Your task to perform on an android device: check google app version Image 0: 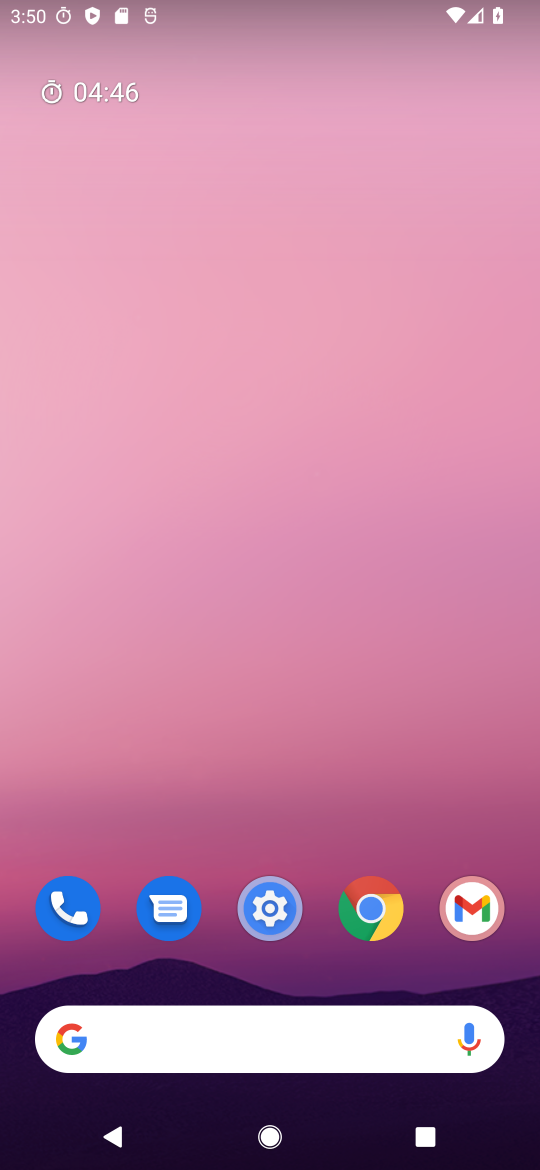
Step 0: press home button
Your task to perform on an android device: check google app version Image 1: 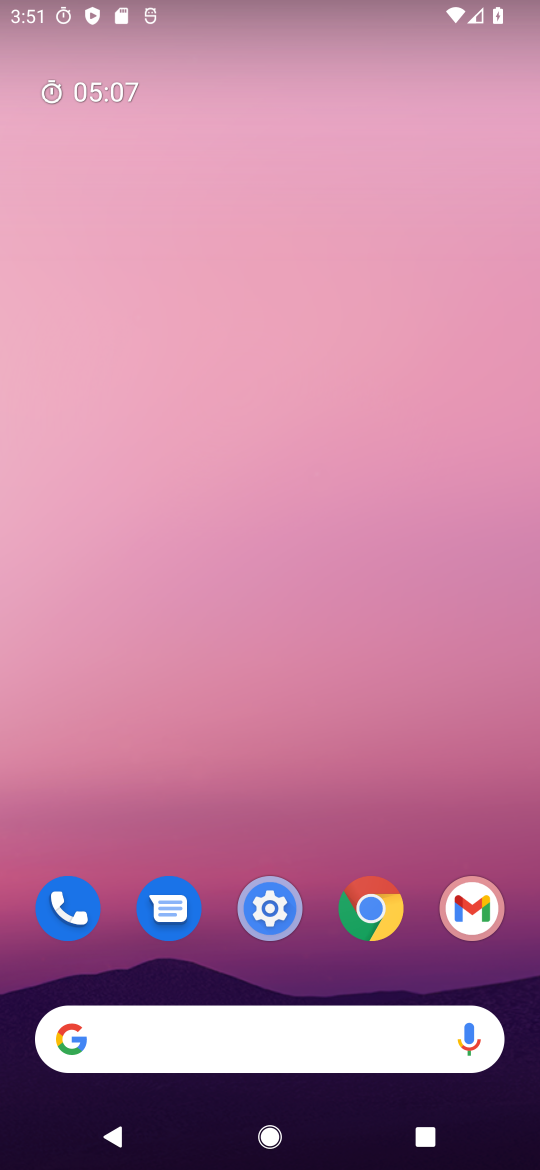
Step 1: drag from (320, 868) to (320, 140)
Your task to perform on an android device: check google app version Image 2: 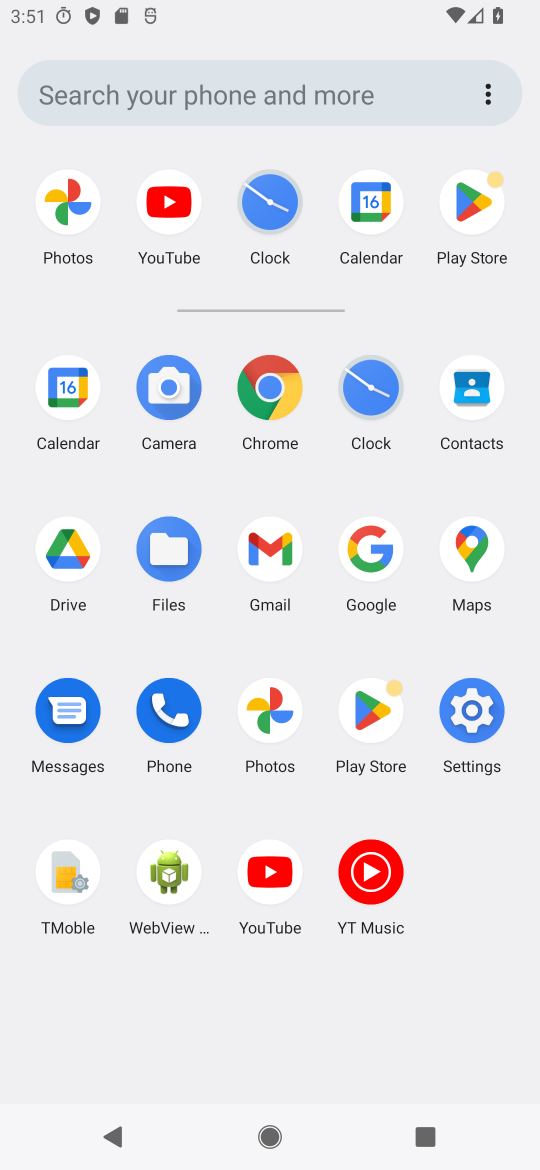
Step 2: click (366, 549)
Your task to perform on an android device: check google app version Image 3: 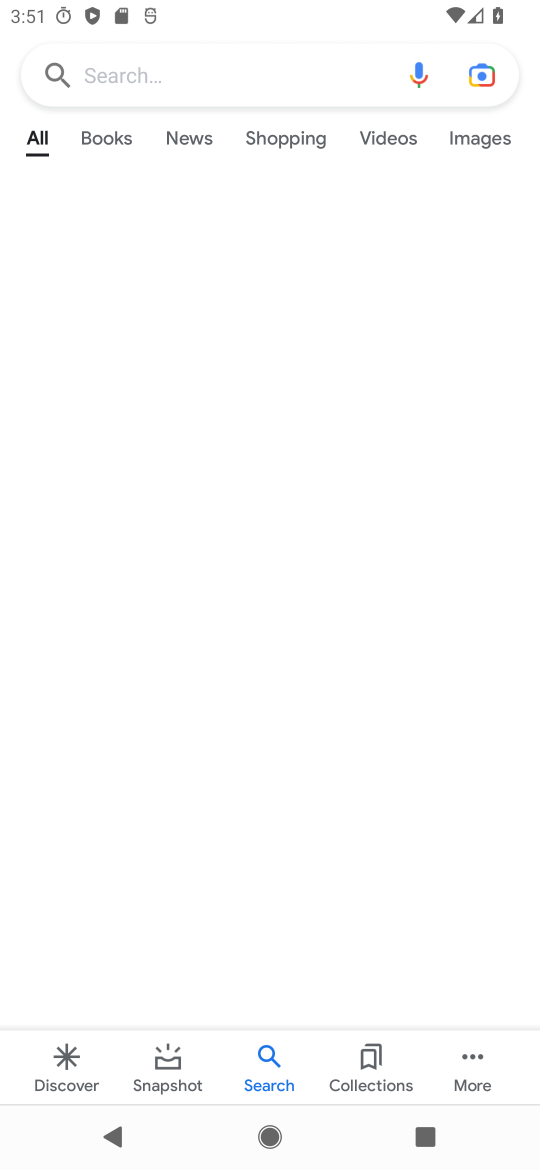
Step 3: click (486, 1060)
Your task to perform on an android device: check google app version Image 4: 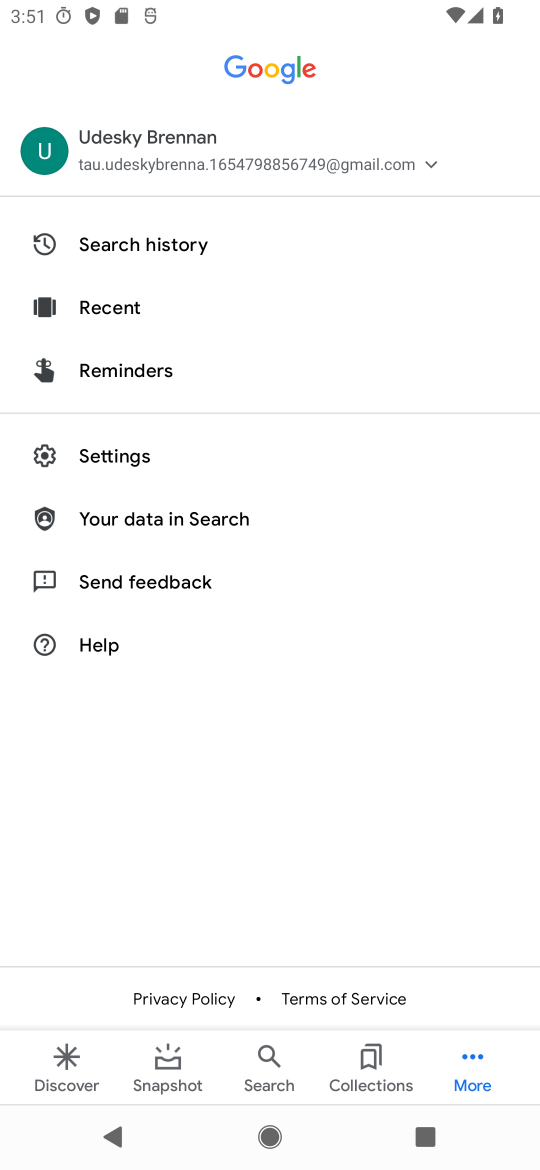
Step 4: click (163, 450)
Your task to perform on an android device: check google app version Image 5: 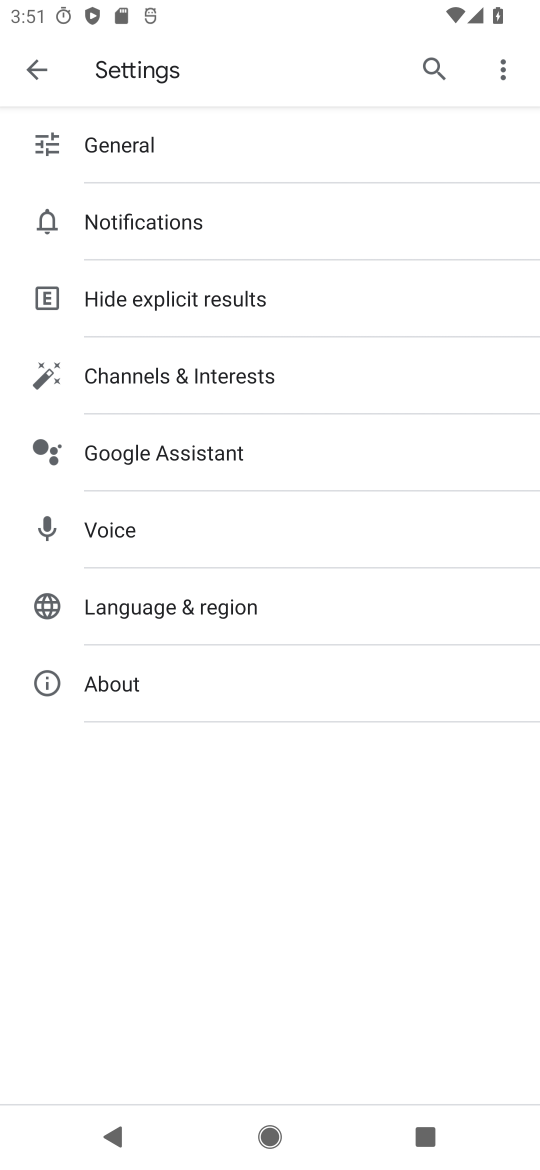
Step 5: click (164, 693)
Your task to perform on an android device: check google app version Image 6: 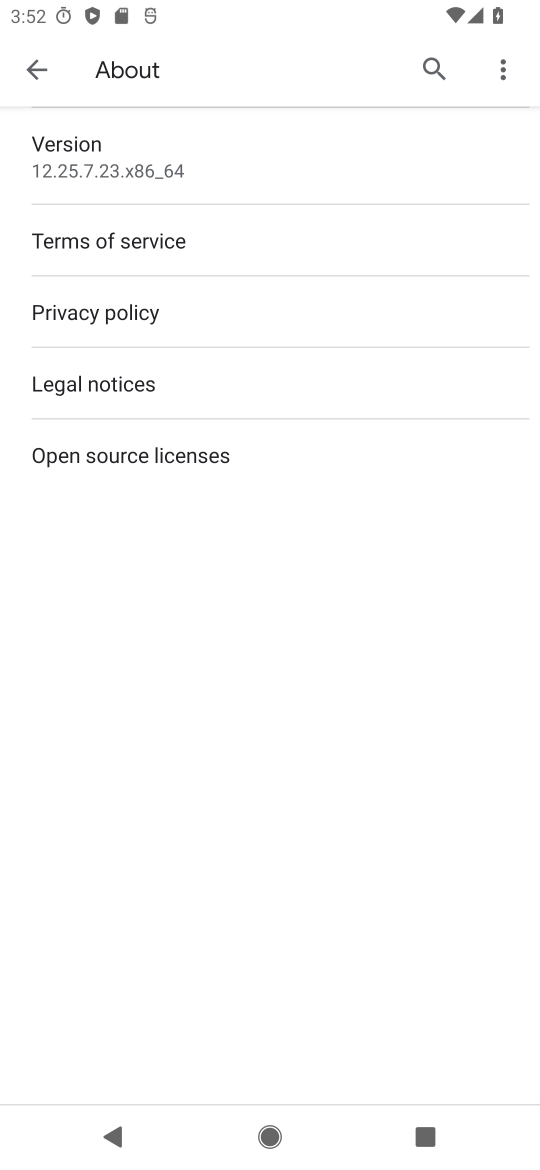
Step 6: click (159, 159)
Your task to perform on an android device: check google app version Image 7: 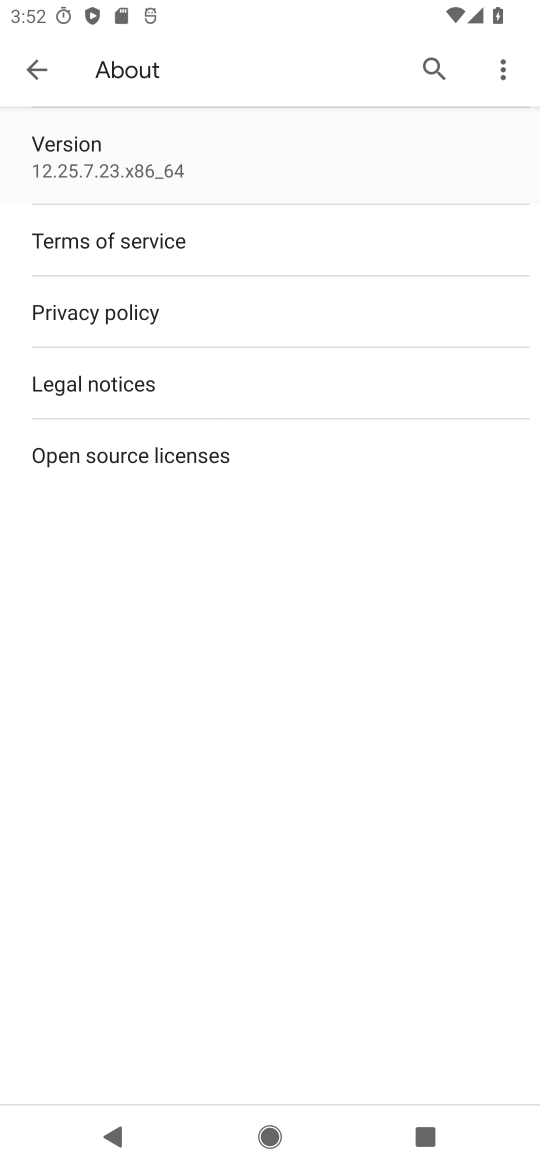
Step 7: task complete